Your task to perform on an android device: Search for sushi restaurants on Maps Image 0: 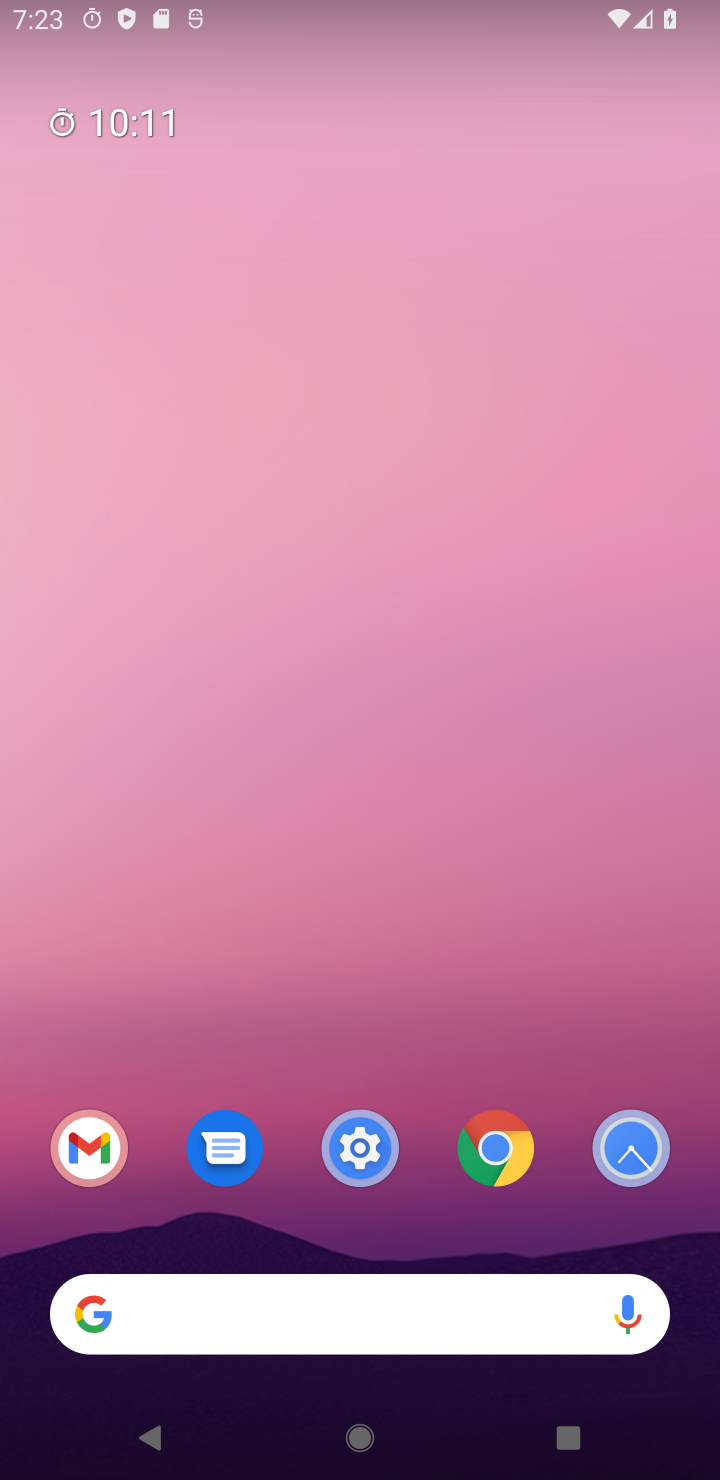
Step 0: click (360, 389)
Your task to perform on an android device: Search for sushi restaurants on Maps Image 1: 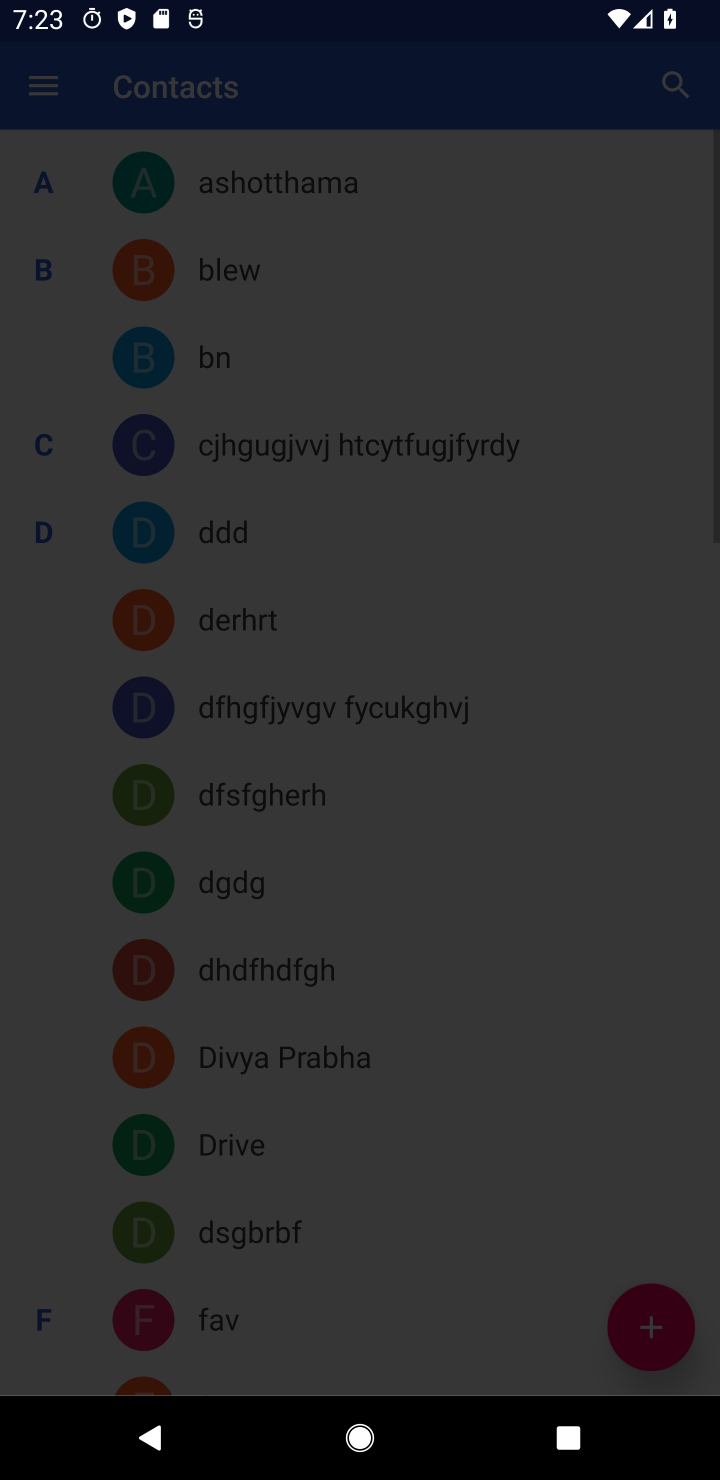
Step 1: task complete